Your task to perform on an android device: toggle wifi Image 0: 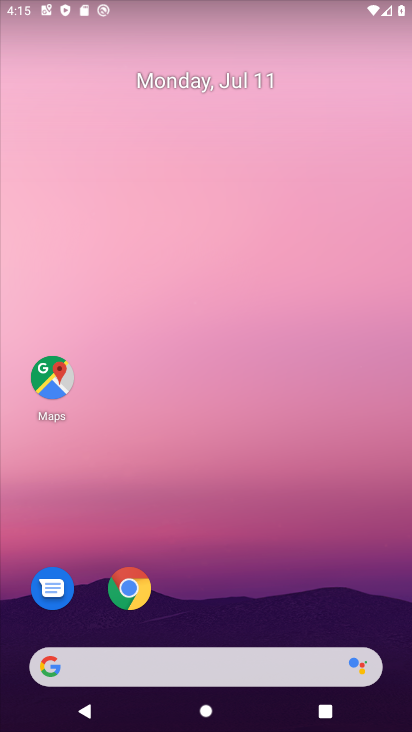
Step 0: drag from (297, 601) to (309, 55)
Your task to perform on an android device: toggle wifi Image 1: 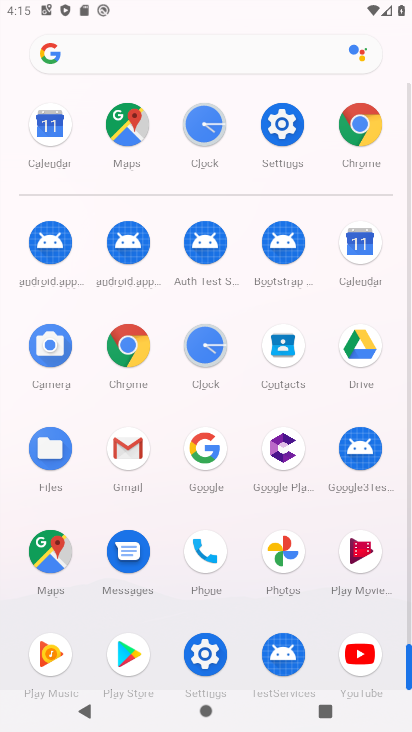
Step 1: click (282, 133)
Your task to perform on an android device: toggle wifi Image 2: 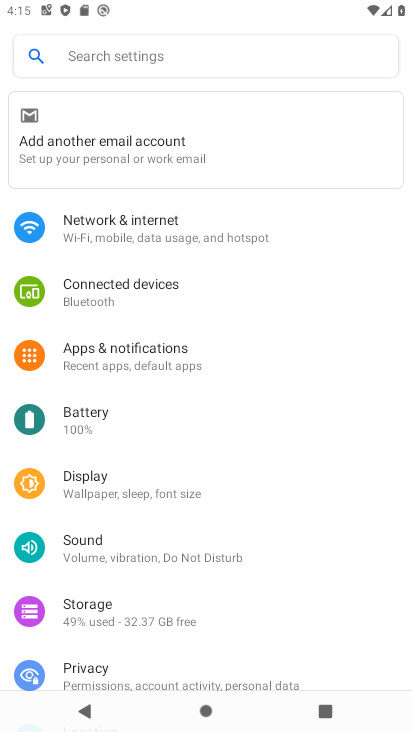
Step 2: drag from (338, 409) to (344, 308)
Your task to perform on an android device: toggle wifi Image 3: 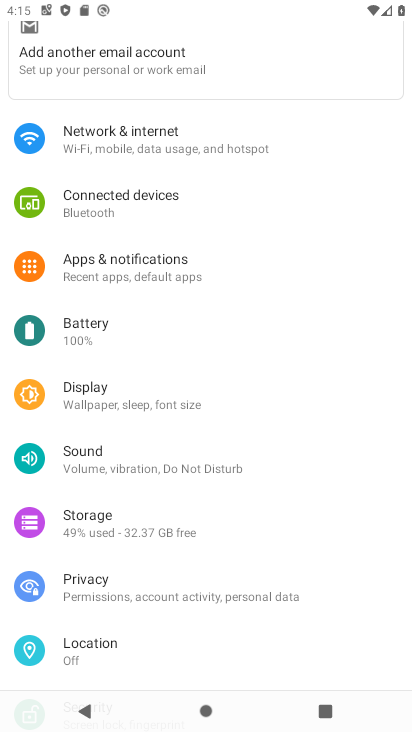
Step 3: drag from (362, 438) to (358, 340)
Your task to perform on an android device: toggle wifi Image 4: 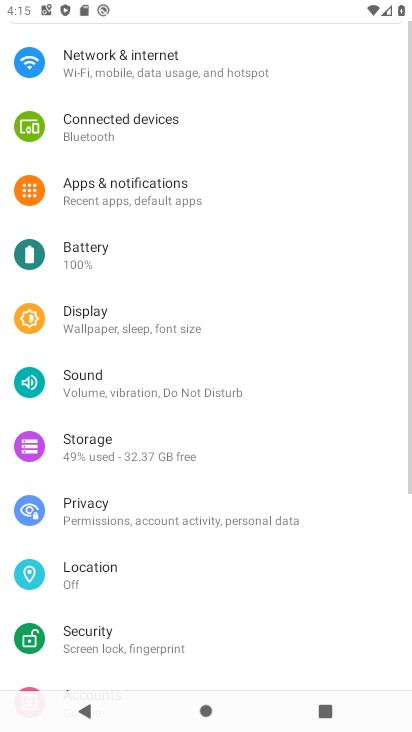
Step 4: drag from (351, 476) to (353, 355)
Your task to perform on an android device: toggle wifi Image 5: 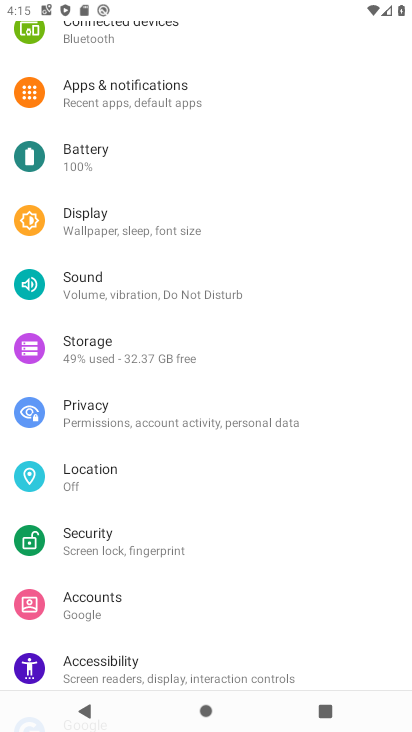
Step 5: drag from (340, 486) to (342, 384)
Your task to perform on an android device: toggle wifi Image 6: 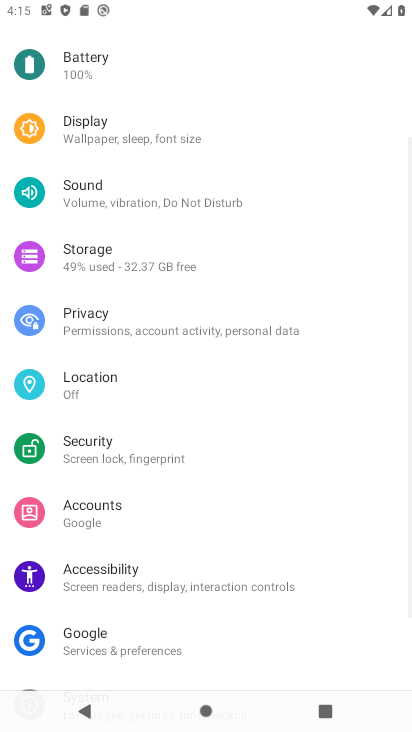
Step 6: drag from (325, 490) to (336, 369)
Your task to perform on an android device: toggle wifi Image 7: 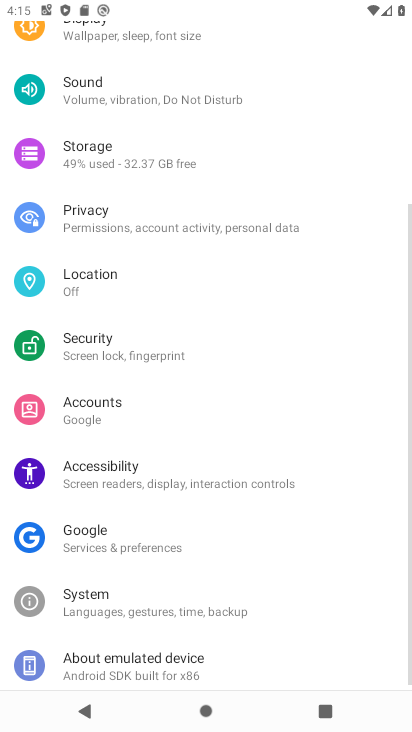
Step 7: drag from (328, 500) to (326, 355)
Your task to perform on an android device: toggle wifi Image 8: 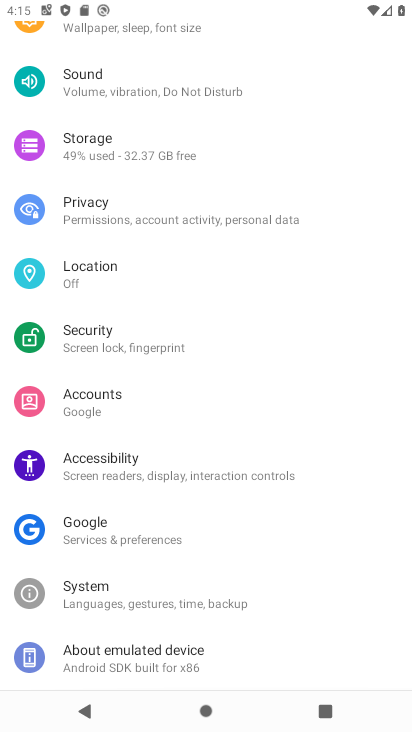
Step 8: drag from (331, 282) to (337, 381)
Your task to perform on an android device: toggle wifi Image 9: 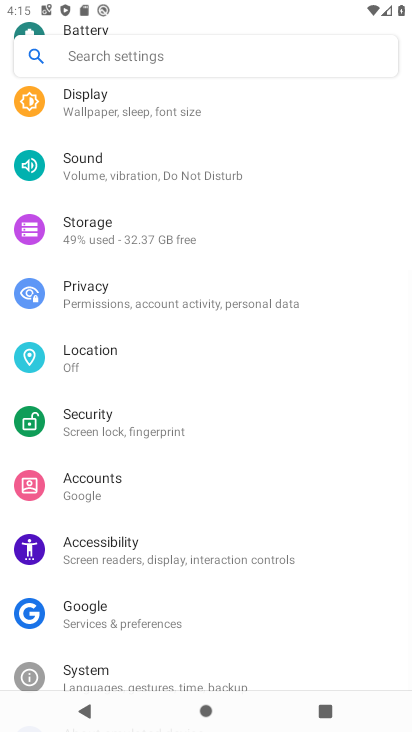
Step 9: drag from (346, 222) to (343, 349)
Your task to perform on an android device: toggle wifi Image 10: 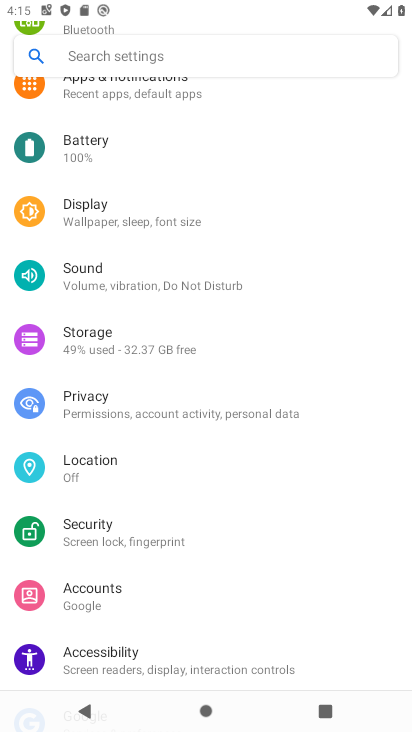
Step 10: drag from (339, 177) to (348, 358)
Your task to perform on an android device: toggle wifi Image 11: 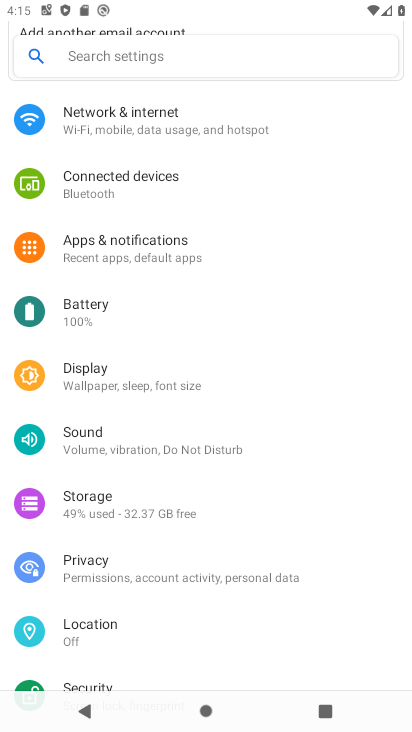
Step 11: drag from (346, 219) to (341, 351)
Your task to perform on an android device: toggle wifi Image 12: 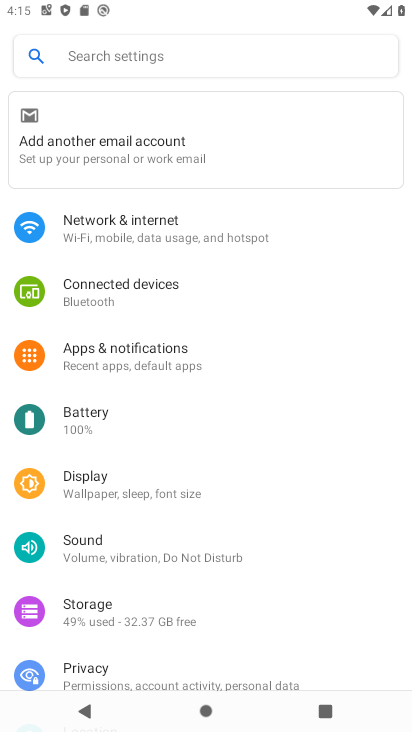
Step 12: click (273, 221)
Your task to perform on an android device: toggle wifi Image 13: 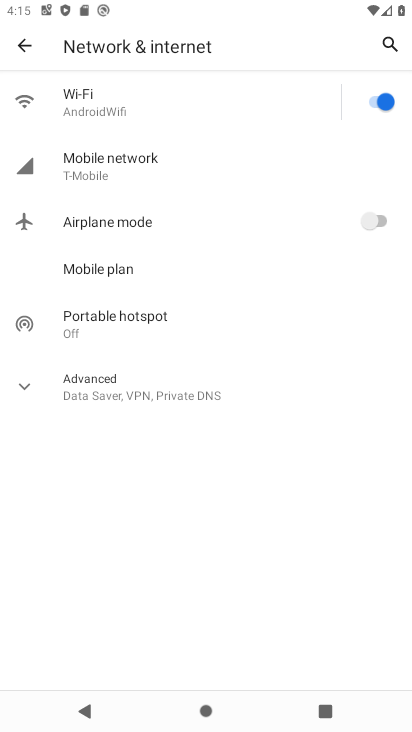
Step 13: click (371, 103)
Your task to perform on an android device: toggle wifi Image 14: 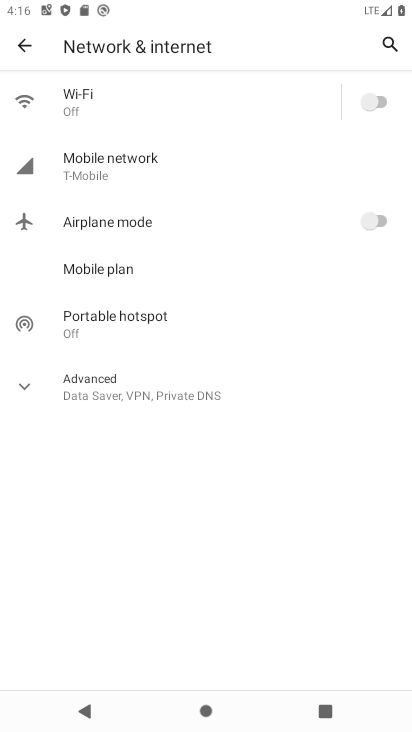
Step 14: task complete